Your task to perform on an android device: Open the stopwatch Image 0: 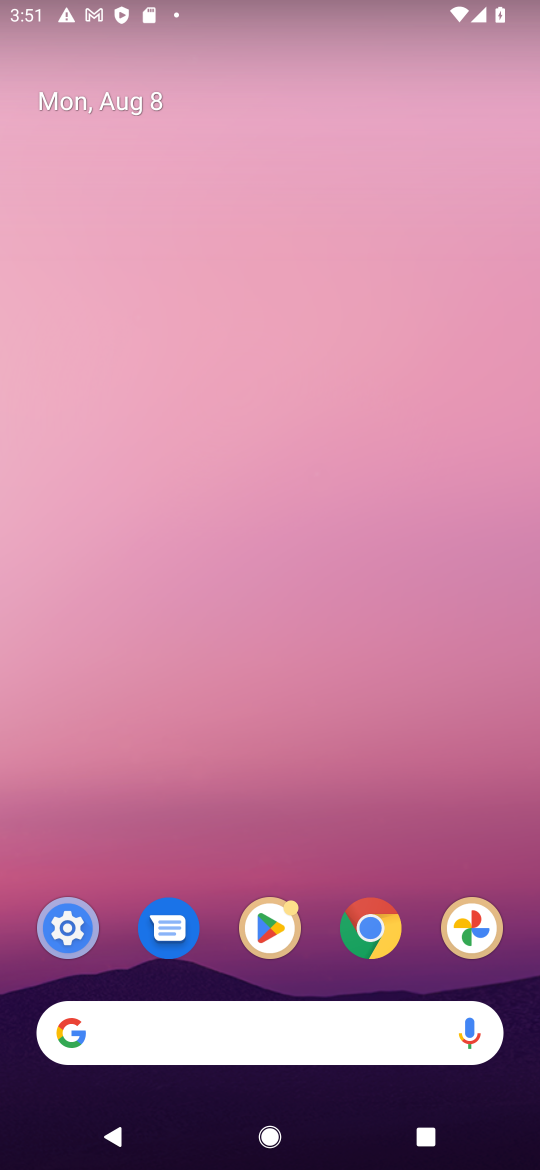
Step 0: drag from (384, 831) to (366, 350)
Your task to perform on an android device: Open the stopwatch Image 1: 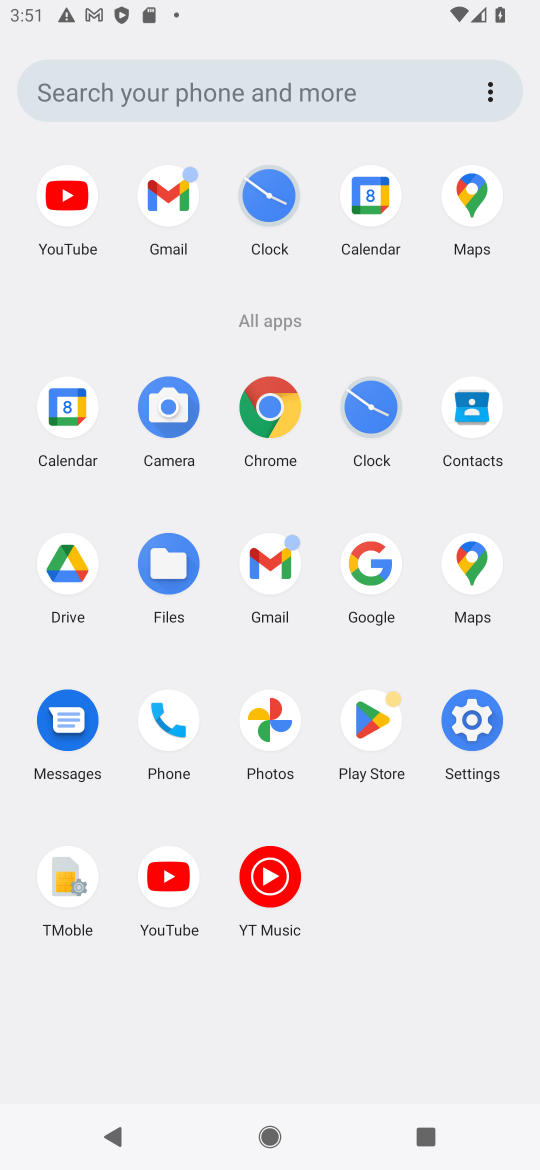
Step 1: click (273, 214)
Your task to perform on an android device: Open the stopwatch Image 2: 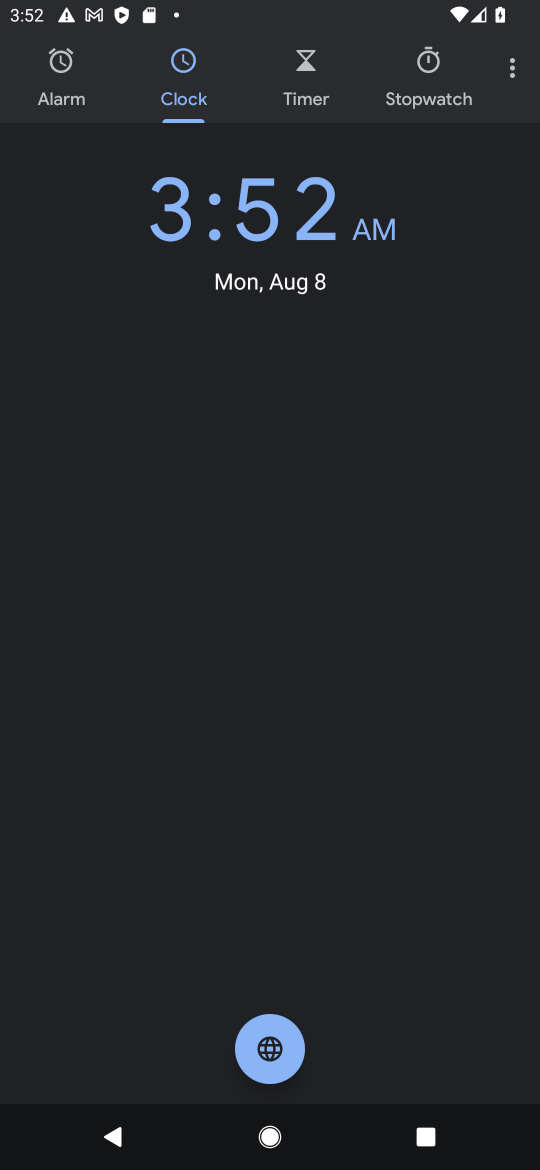
Step 2: click (432, 96)
Your task to perform on an android device: Open the stopwatch Image 3: 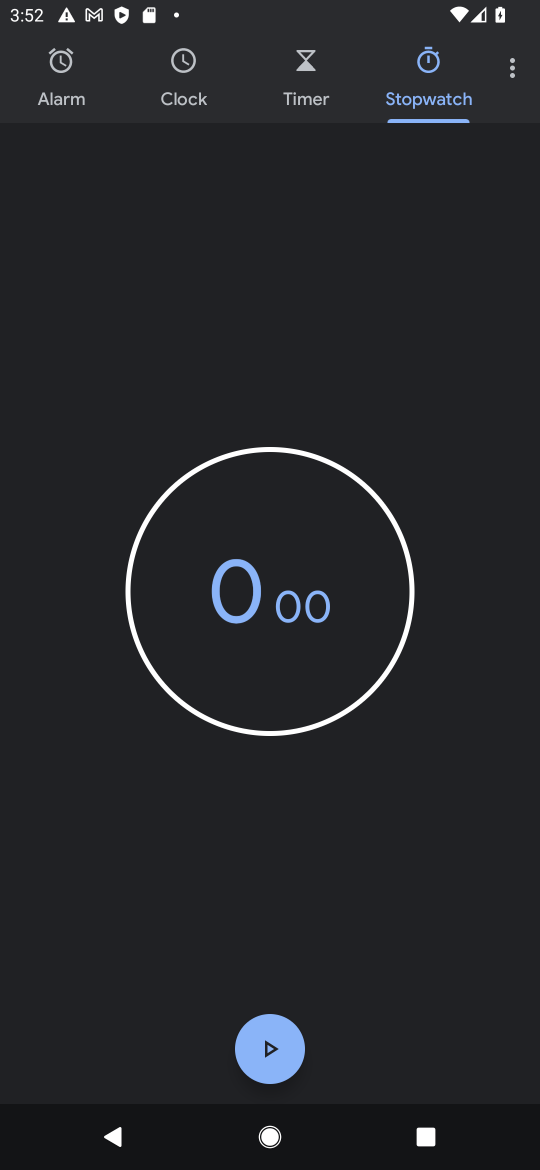
Step 3: task complete